Your task to perform on an android device: check storage Image 0: 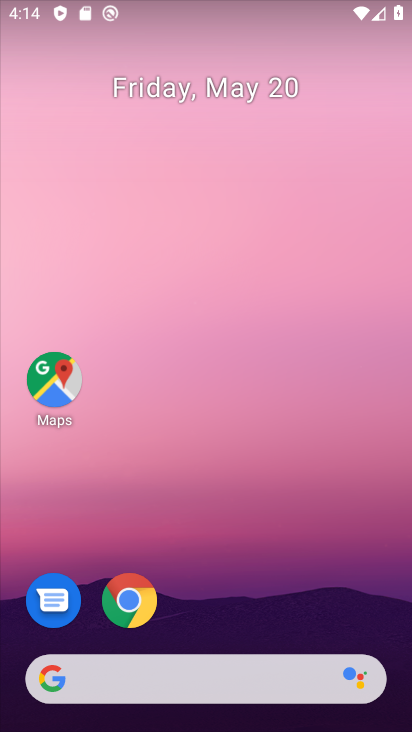
Step 0: drag from (237, 546) to (243, 94)
Your task to perform on an android device: check storage Image 1: 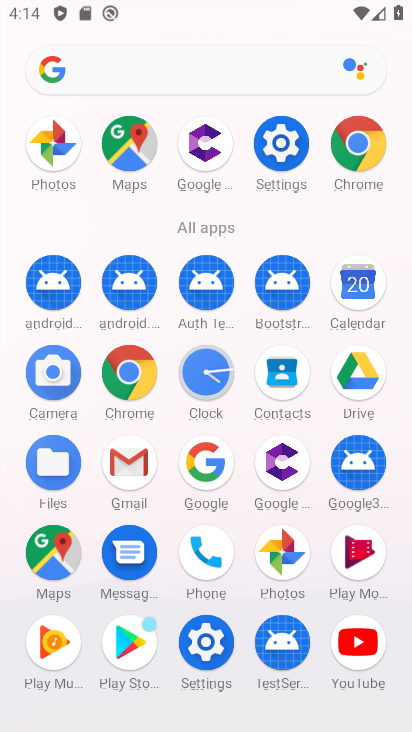
Step 1: click (280, 135)
Your task to perform on an android device: check storage Image 2: 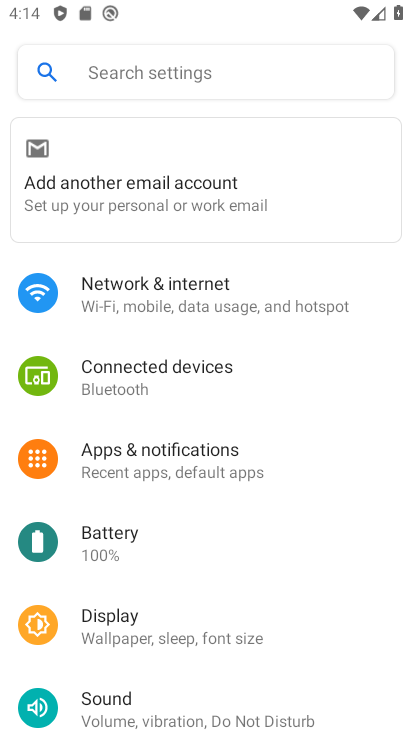
Step 2: drag from (144, 594) to (196, 213)
Your task to perform on an android device: check storage Image 3: 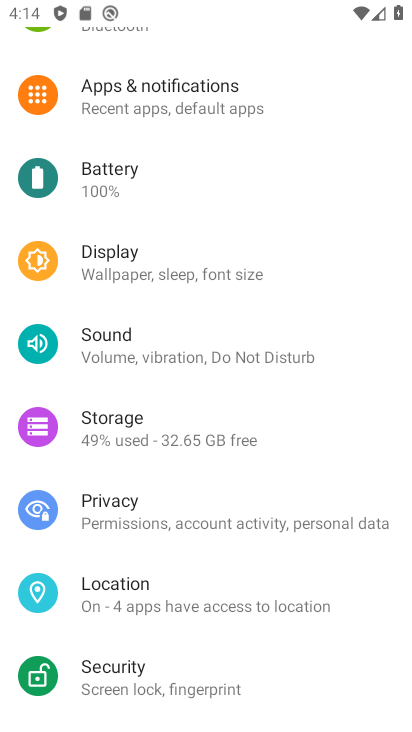
Step 3: click (171, 428)
Your task to perform on an android device: check storage Image 4: 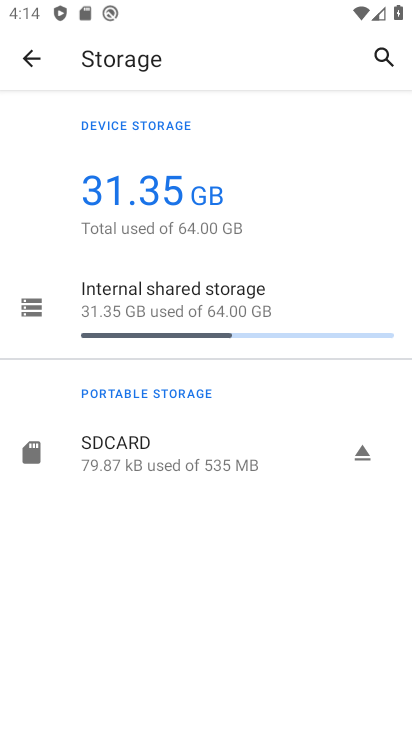
Step 4: task complete